Your task to perform on an android device: Check the news Image 0: 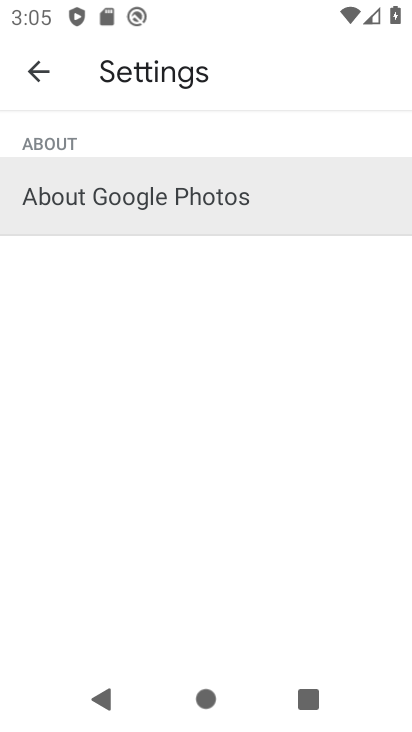
Step 0: press home button
Your task to perform on an android device: Check the news Image 1: 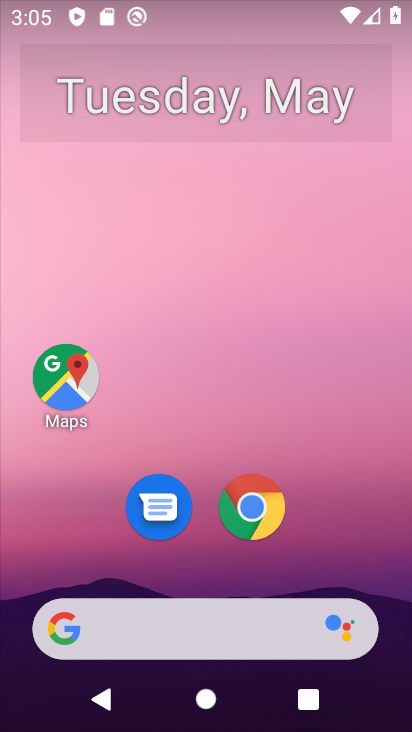
Step 1: click (115, 638)
Your task to perform on an android device: Check the news Image 2: 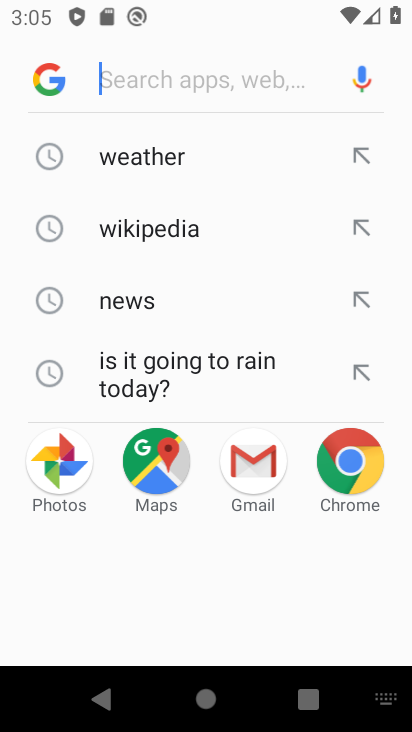
Step 2: type "news"
Your task to perform on an android device: Check the news Image 3: 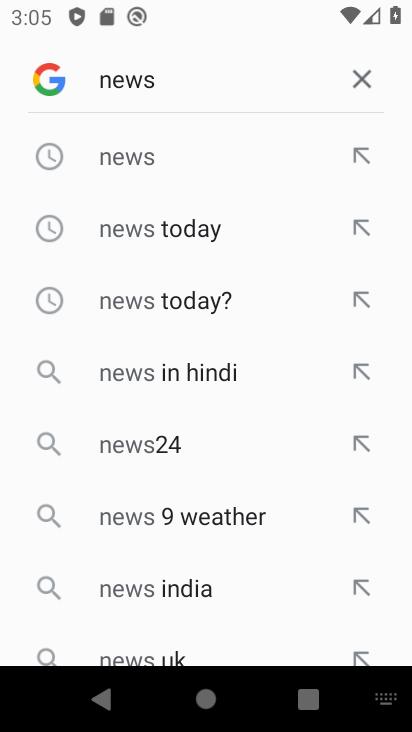
Step 3: click (111, 161)
Your task to perform on an android device: Check the news Image 4: 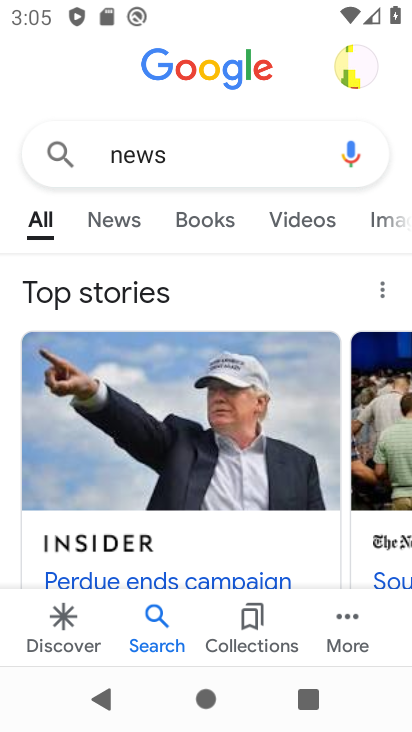
Step 4: click (139, 209)
Your task to perform on an android device: Check the news Image 5: 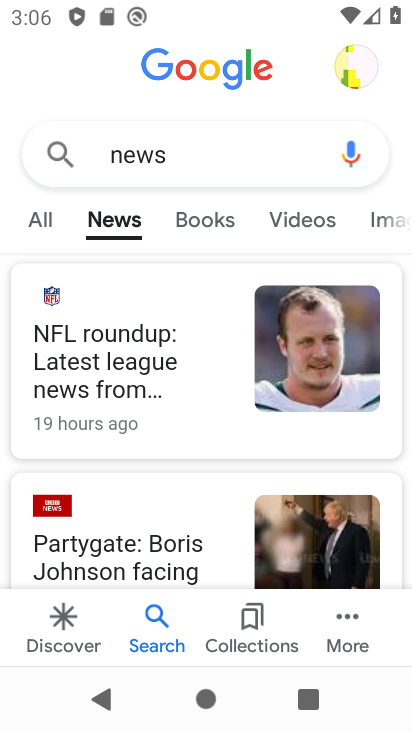
Step 5: task complete